Your task to perform on an android device: Is it going to rain tomorrow? Image 0: 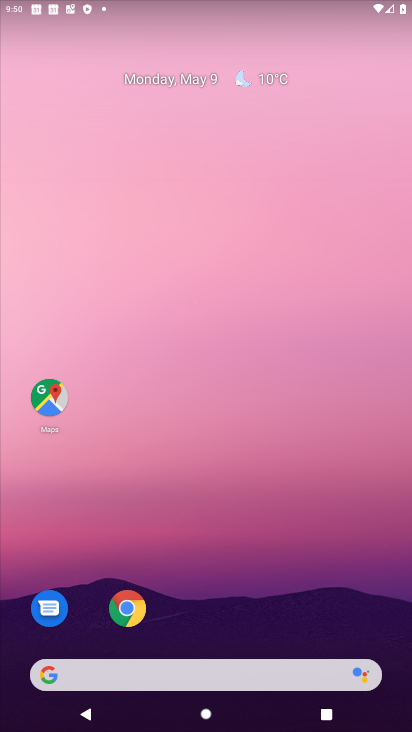
Step 0: drag from (257, 576) to (250, 126)
Your task to perform on an android device: Is it going to rain tomorrow? Image 1: 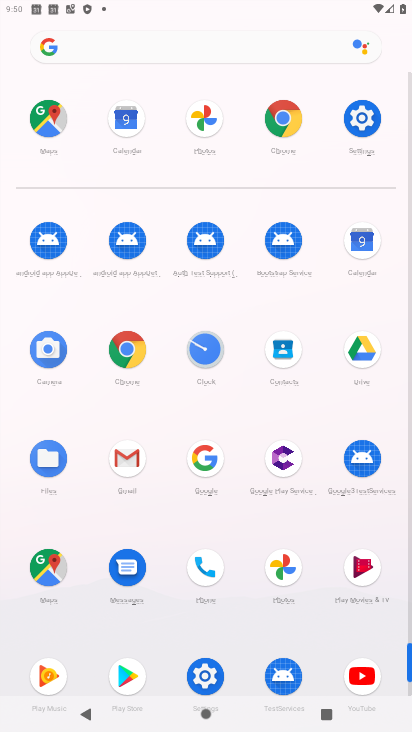
Step 1: press back button
Your task to perform on an android device: Is it going to rain tomorrow? Image 2: 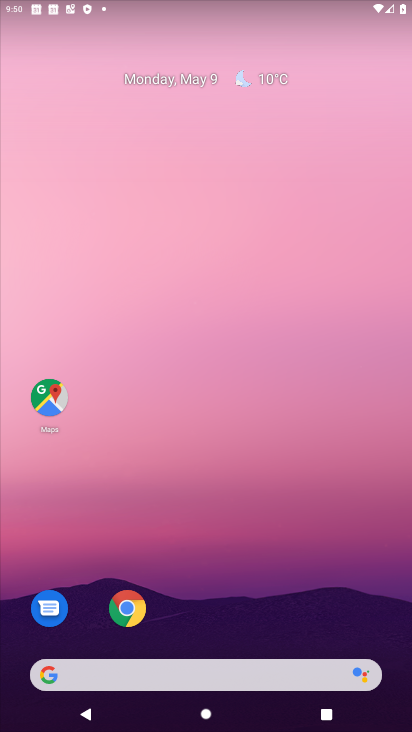
Step 2: click (282, 77)
Your task to perform on an android device: Is it going to rain tomorrow? Image 3: 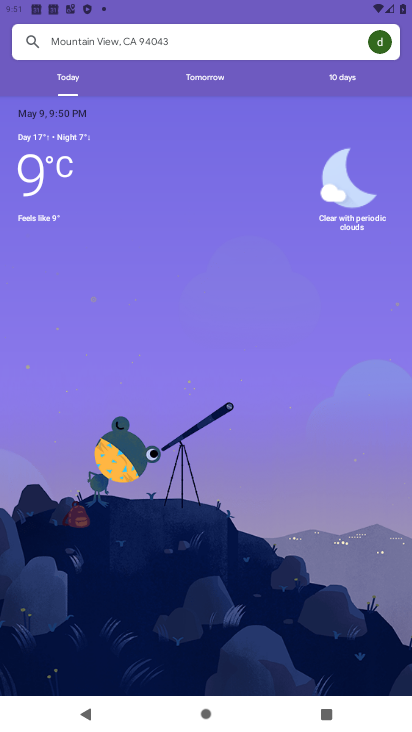
Step 3: click (192, 79)
Your task to perform on an android device: Is it going to rain tomorrow? Image 4: 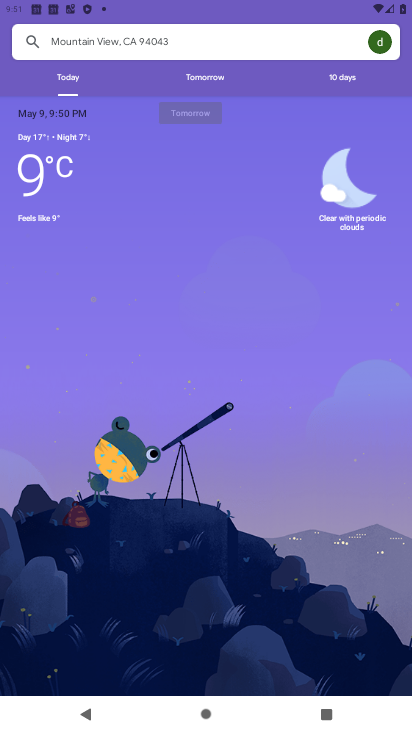
Step 4: click (192, 78)
Your task to perform on an android device: Is it going to rain tomorrow? Image 5: 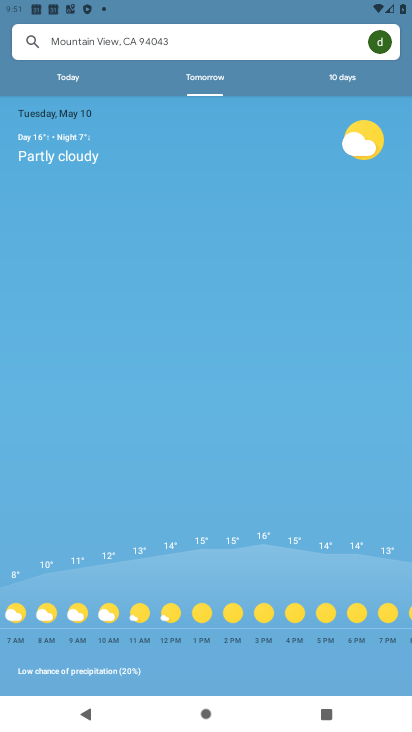
Step 5: task complete